Your task to perform on an android device: Play the last video I watched on Youtube Image 0: 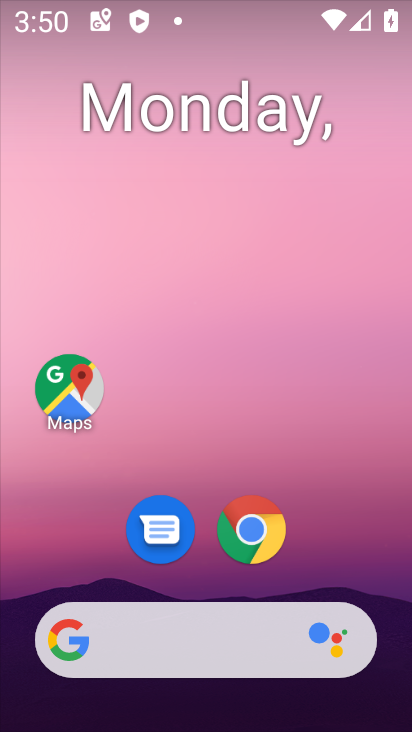
Step 0: drag from (208, 702) to (212, 157)
Your task to perform on an android device: Play the last video I watched on Youtube Image 1: 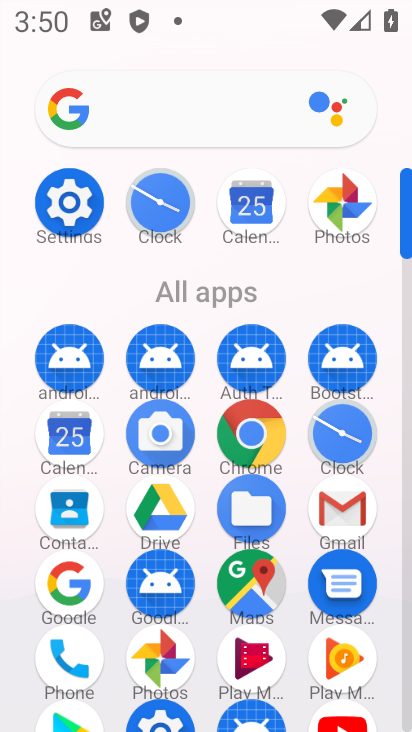
Step 1: drag from (303, 627) to (283, 289)
Your task to perform on an android device: Play the last video I watched on Youtube Image 2: 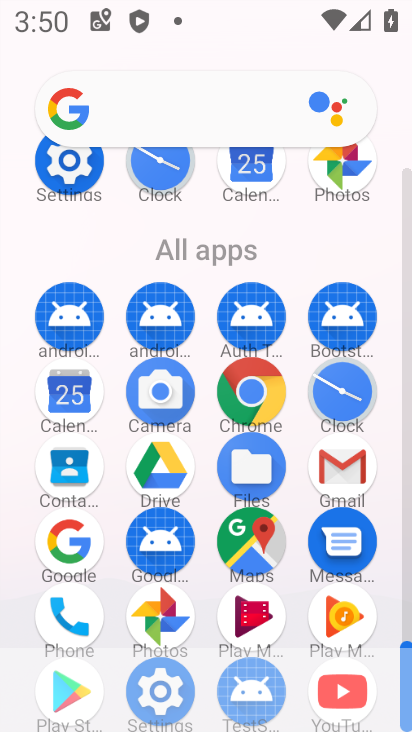
Step 2: click (342, 704)
Your task to perform on an android device: Play the last video I watched on Youtube Image 3: 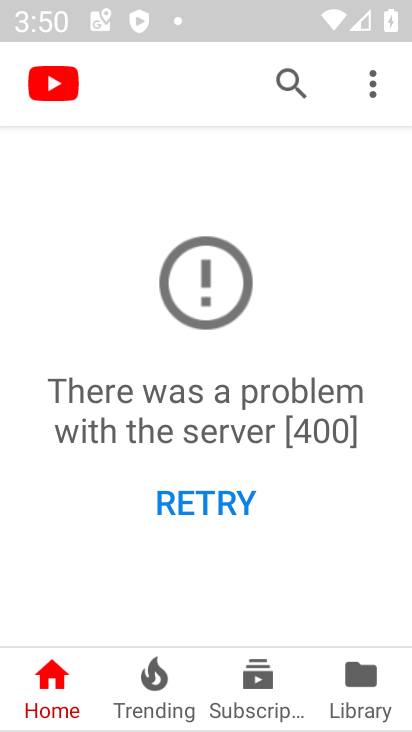
Step 3: click (358, 683)
Your task to perform on an android device: Play the last video I watched on Youtube Image 4: 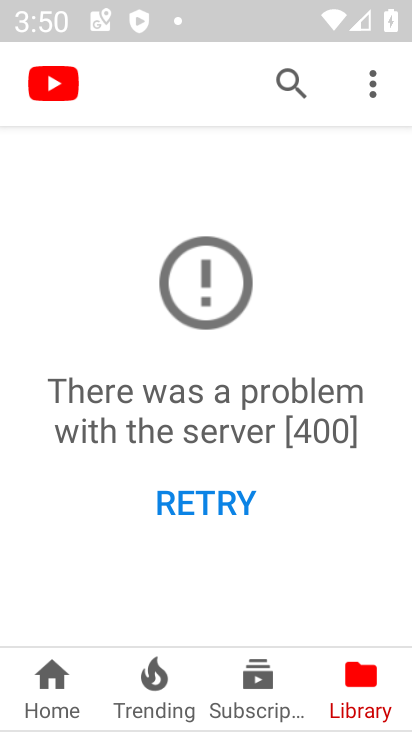
Step 4: task complete